Your task to perform on an android device: snooze an email in the gmail app Image 0: 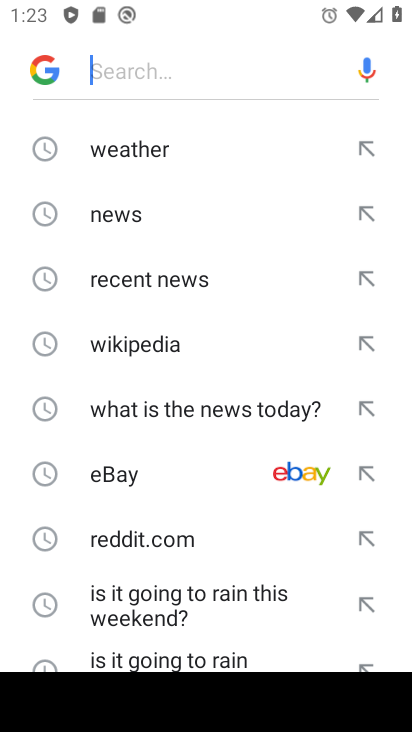
Step 0: press home button
Your task to perform on an android device: snooze an email in the gmail app Image 1: 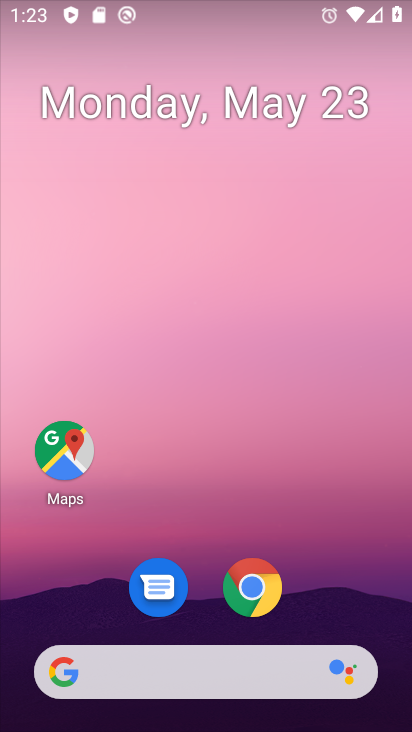
Step 1: drag from (335, 605) to (287, 74)
Your task to perform on an android device: snooze an email in the gmail app Image 2: 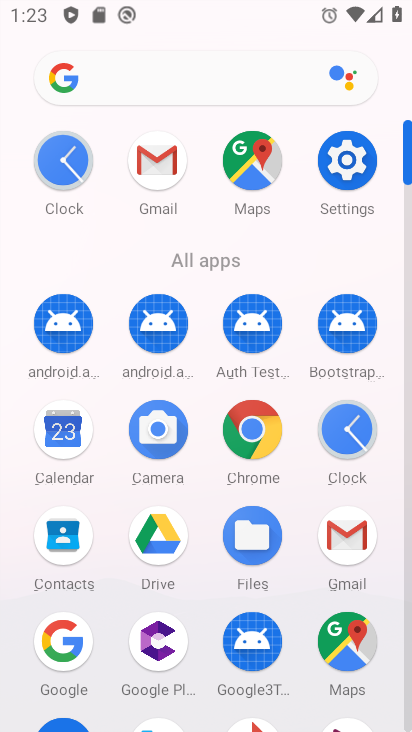
Step 2: click (147, 172)
Your task to perform on an android device: snooze an email in the gmail app Image 3: 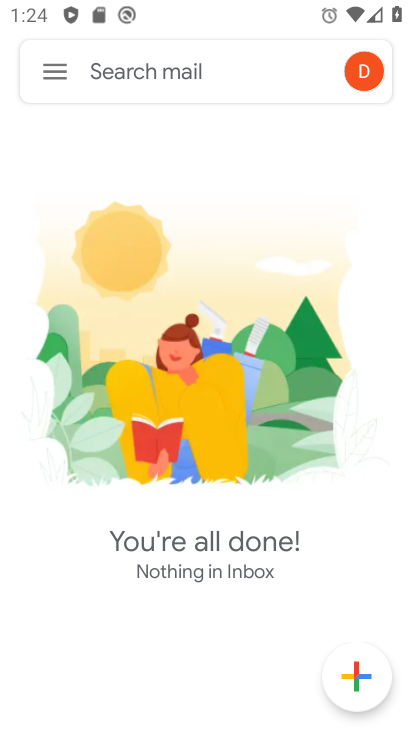
Step 3: click (65, 84)
Your task to perform on an android device: snooze an email in the gmail app Image 4: 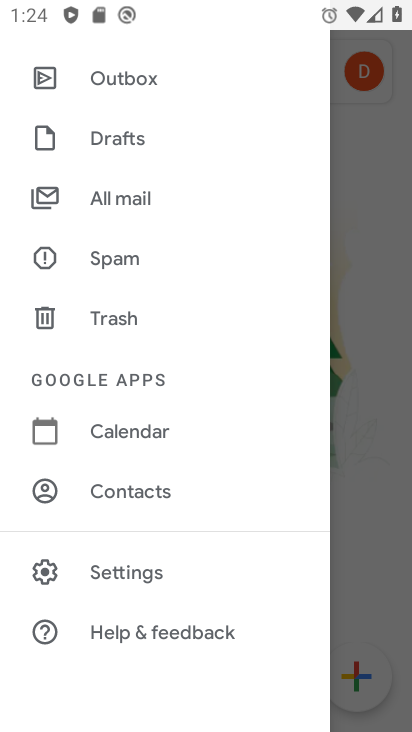
Step 4: click (139, 207)
Your task to perform on an android device: snooze an email in the gmail app Image 5: 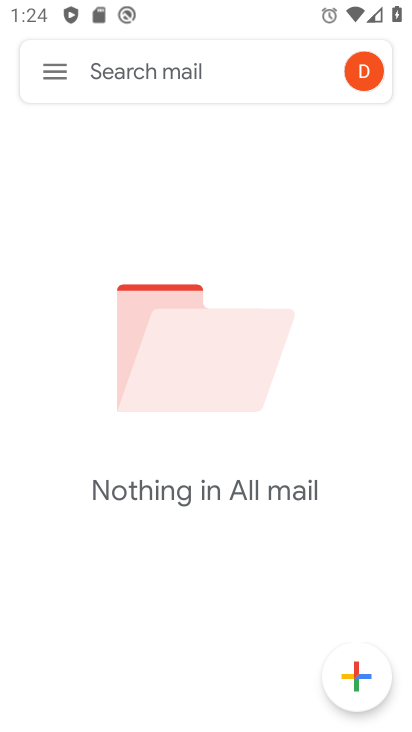
Step 5: task complete